Your task to perform on an android device: Go to calendar. Show me events next week Image 0: 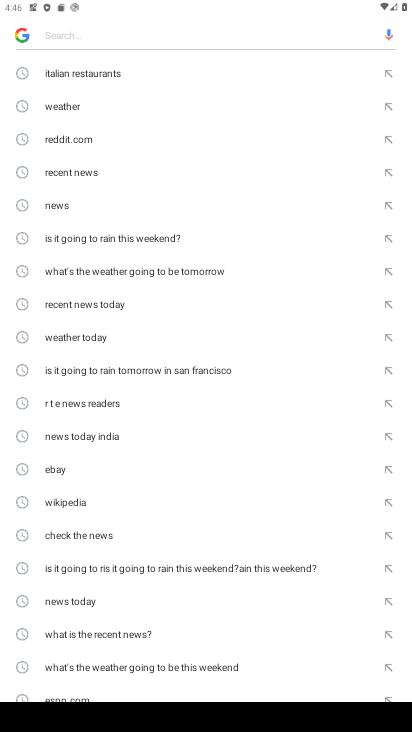
Step 0: press home button
Your task to perform on an android device: Go to calendar. Show me events next week Image 1: 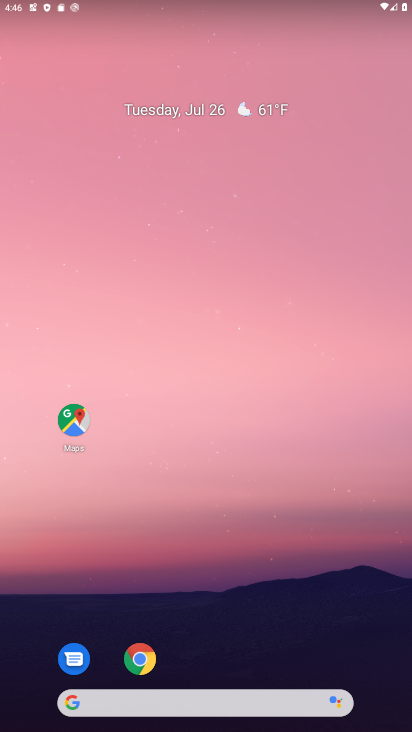
Step 1: drag from (252, 556) to (308, 222)
Your task to perform on an android device: Go to calendar. Show me events next week Image 2: 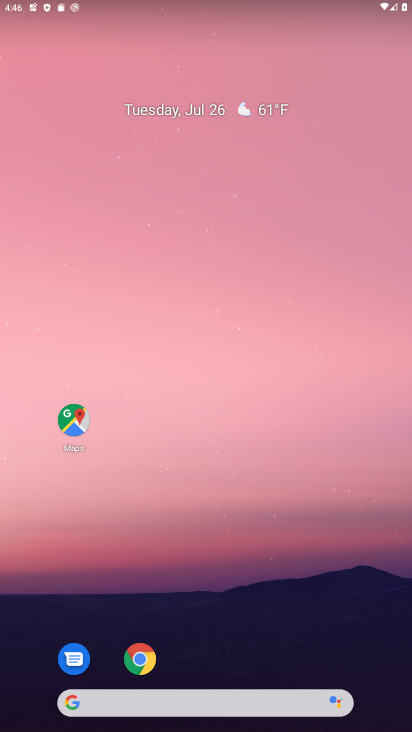
Step 2: drag from (303, 528) to (332, 175)
Your task to perform on an android device: Go to calendar. Show me events next week Image 3: 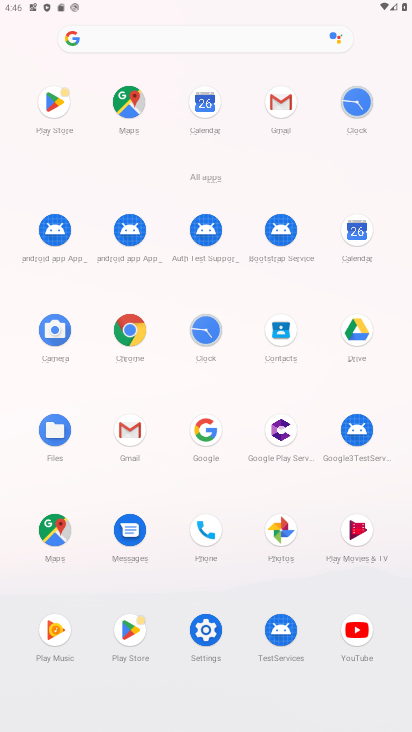
Step 3: click (356, 235)
Your task to perform on an android device: Go to calendar. Show me events next week Image 4: 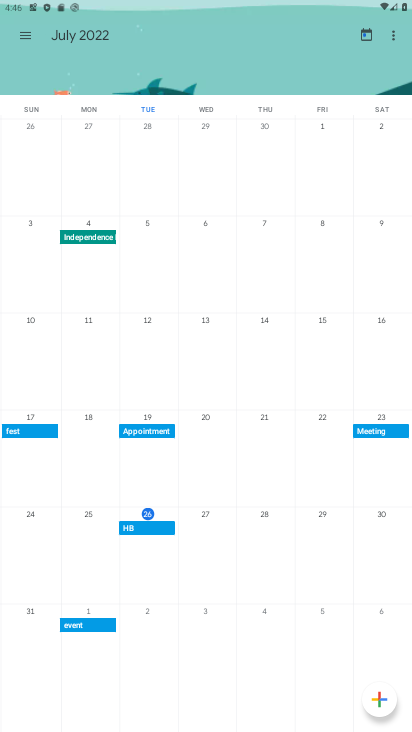
Step 4: task complete